Your task to perform on an android device: What's on my calendar today? Image 0: 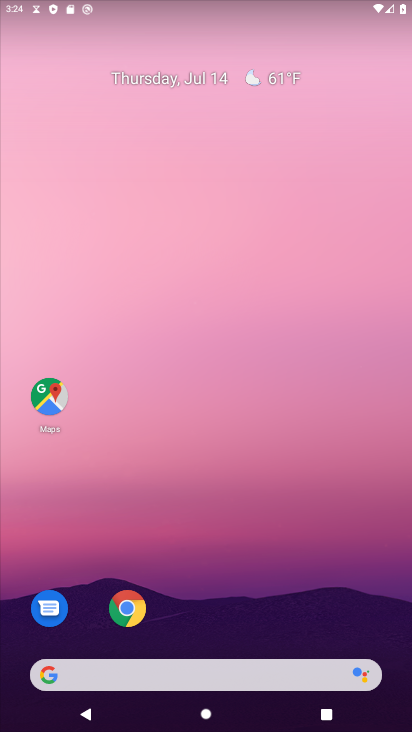
Step 0: drag from (212, 685) to (284, 41)
Your task to perform on an android device: What's on my calendar today? Image 1: 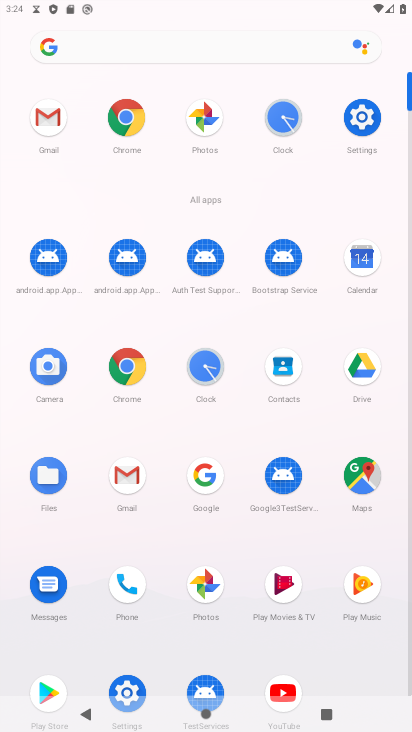
Step 1: click (367, 276)
Your task to perform on an android device: What's on my calendar today? Image 2: 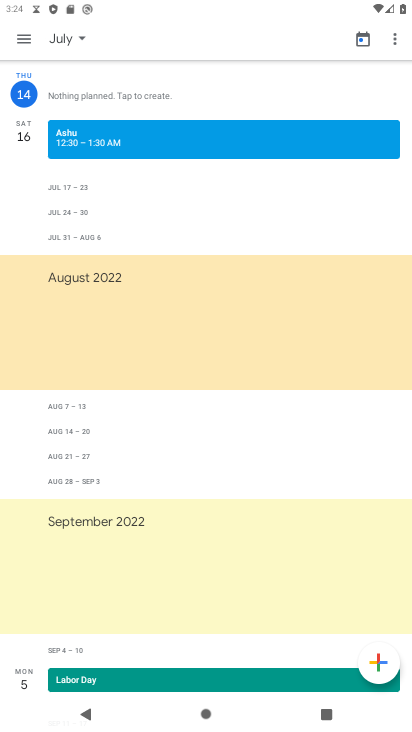
Step 2: click (27, 101)
Your task to perform on an android device: What's on my calendar today? Image 3: 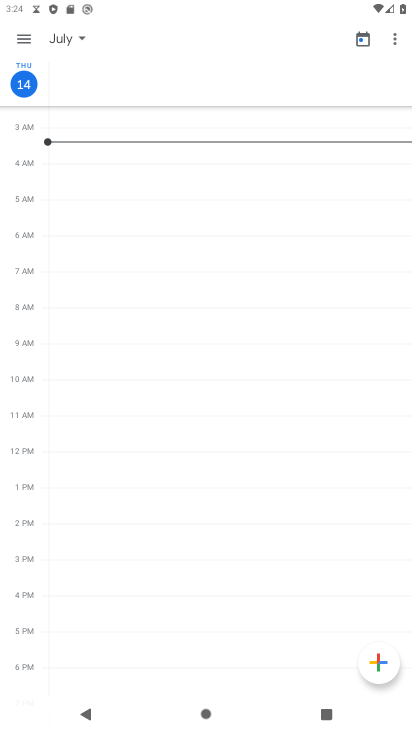
Step 3: task complete